Your task to perform on an android device: Open CNN.com Image 0: 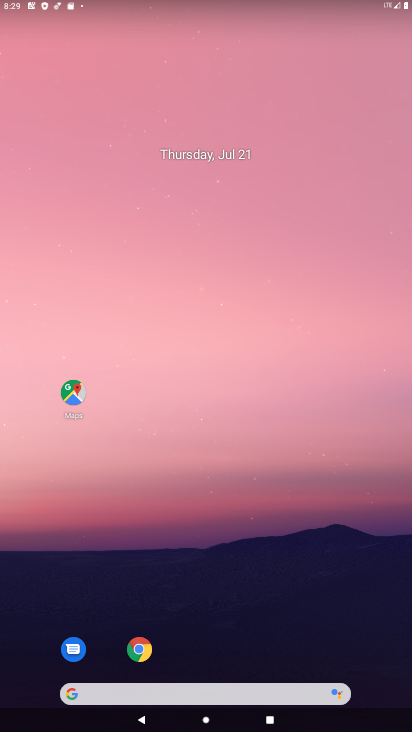
Step 0: click (136, 655)
Your task to perform on an android device: Open CNN.com Image 1: 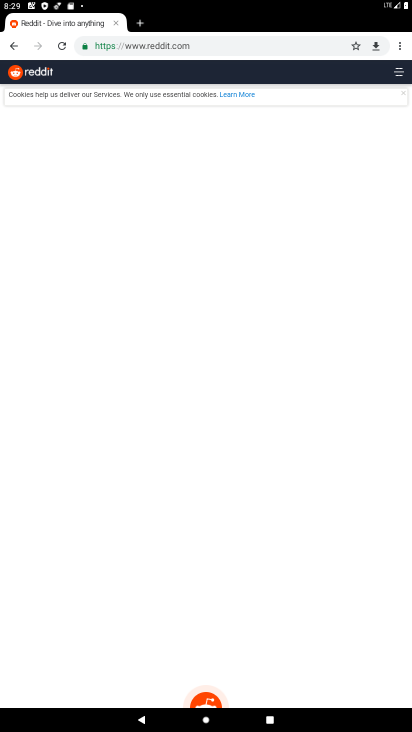
Step 1: click (184, 41)
Your task to perform on an android device: Open CNN.com Image 2: 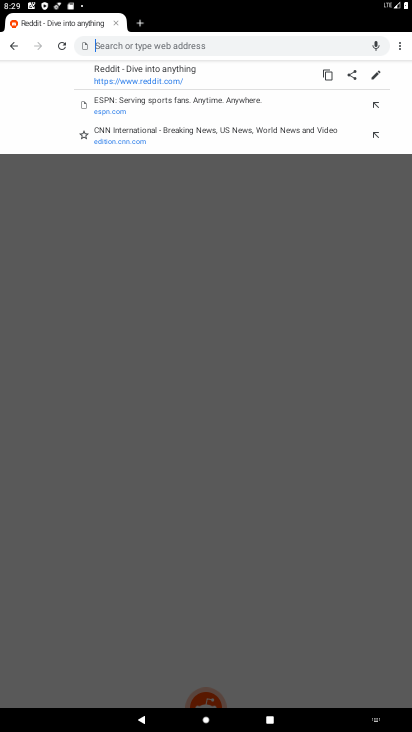
Step 2: type "cnn.com"
Your task to perform on an android device: Open CNN.com Image 3: 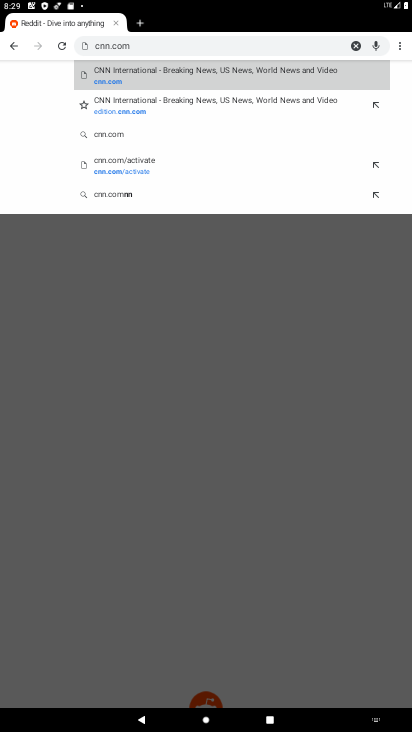
Step 3: click (137, 66)
Your task to perform on an android device: Open CNN.com Image 4: 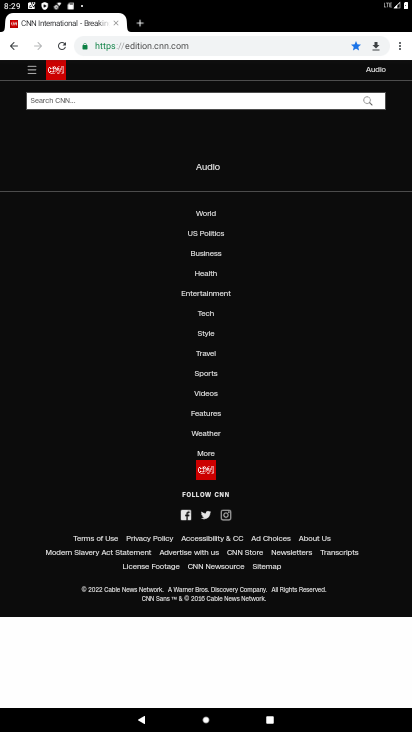
Step 4: task complete